Your task to perform on an android device: Search for razer blade on amazon, select the first entry, and add it to the cart. Image 0: 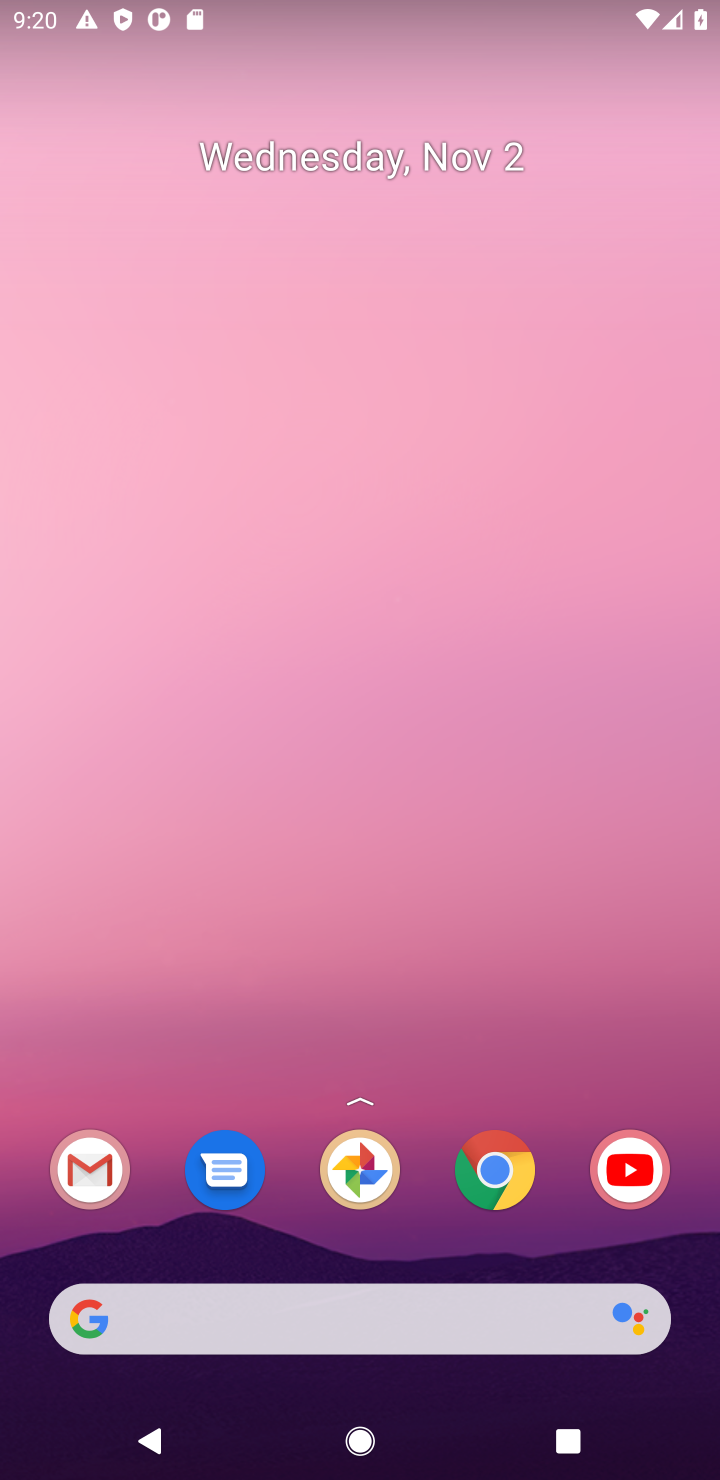
Step 0: click (497, 1173)
Your task to perform on an android device: Search for razer blade on amazon, select the first entry, and add it to the cart. Image 1: 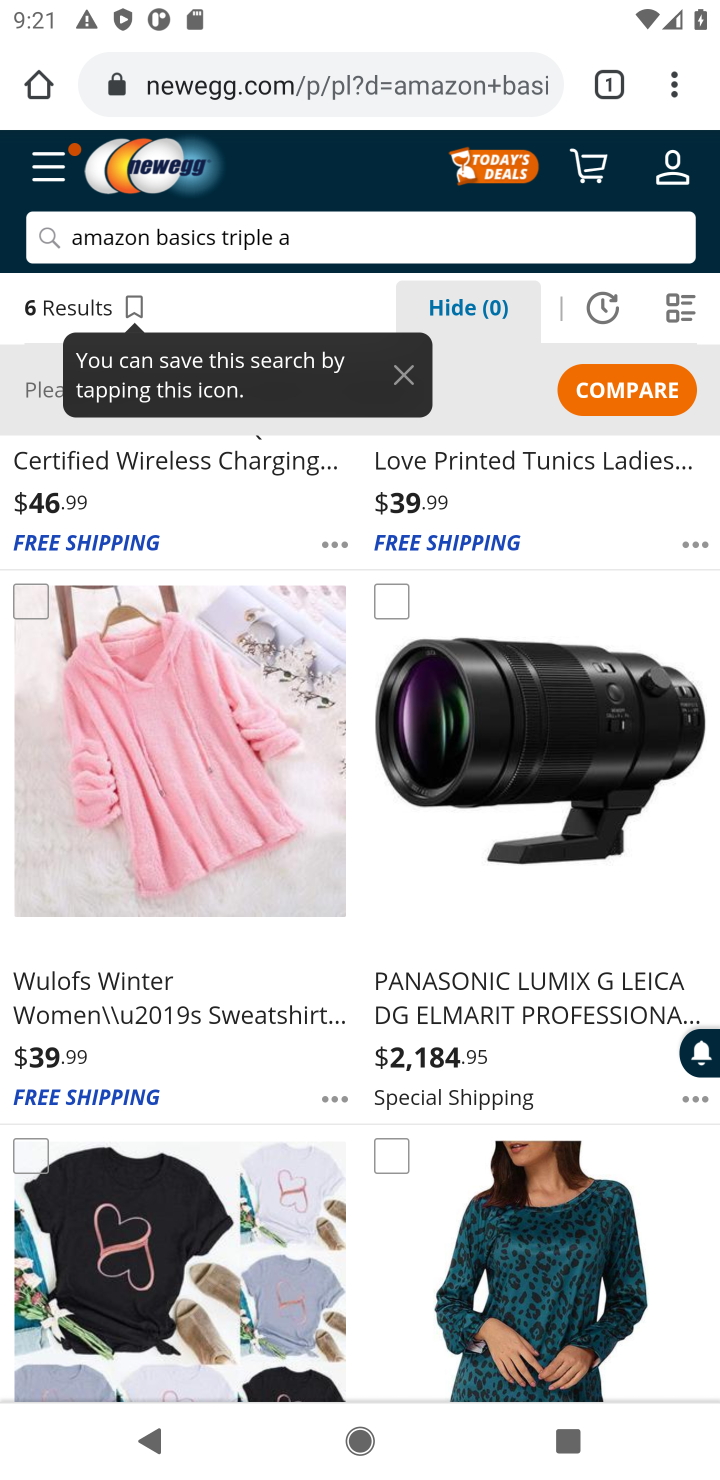
Step 1: click (425, 93)
Your task to perform on an android device: Search for razer blade on amazon, select the first entry, and add it to the cart. Image 2: 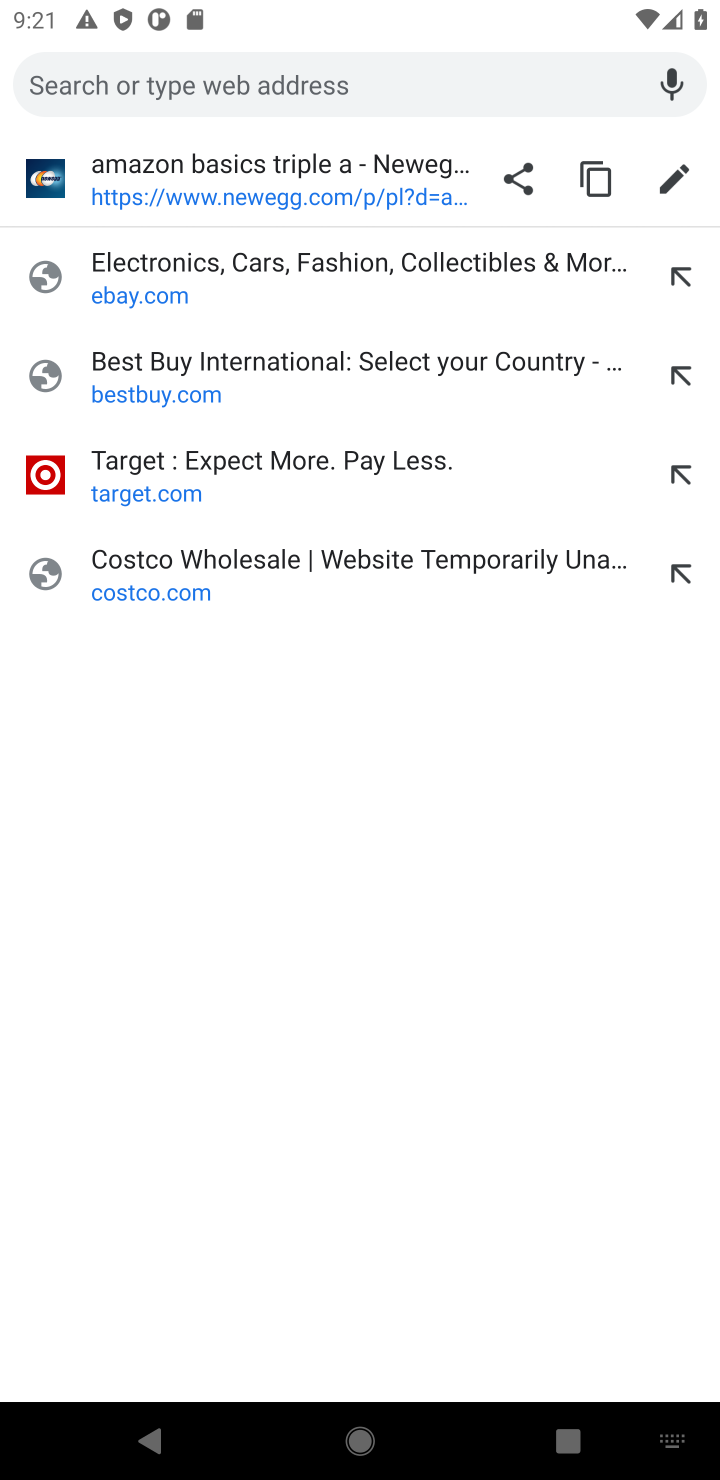
Step 2: type "amazon"
Your task to perform on an android device: Search for razer blade on amazon, select the first entry, and add it to the cart. Image 3: 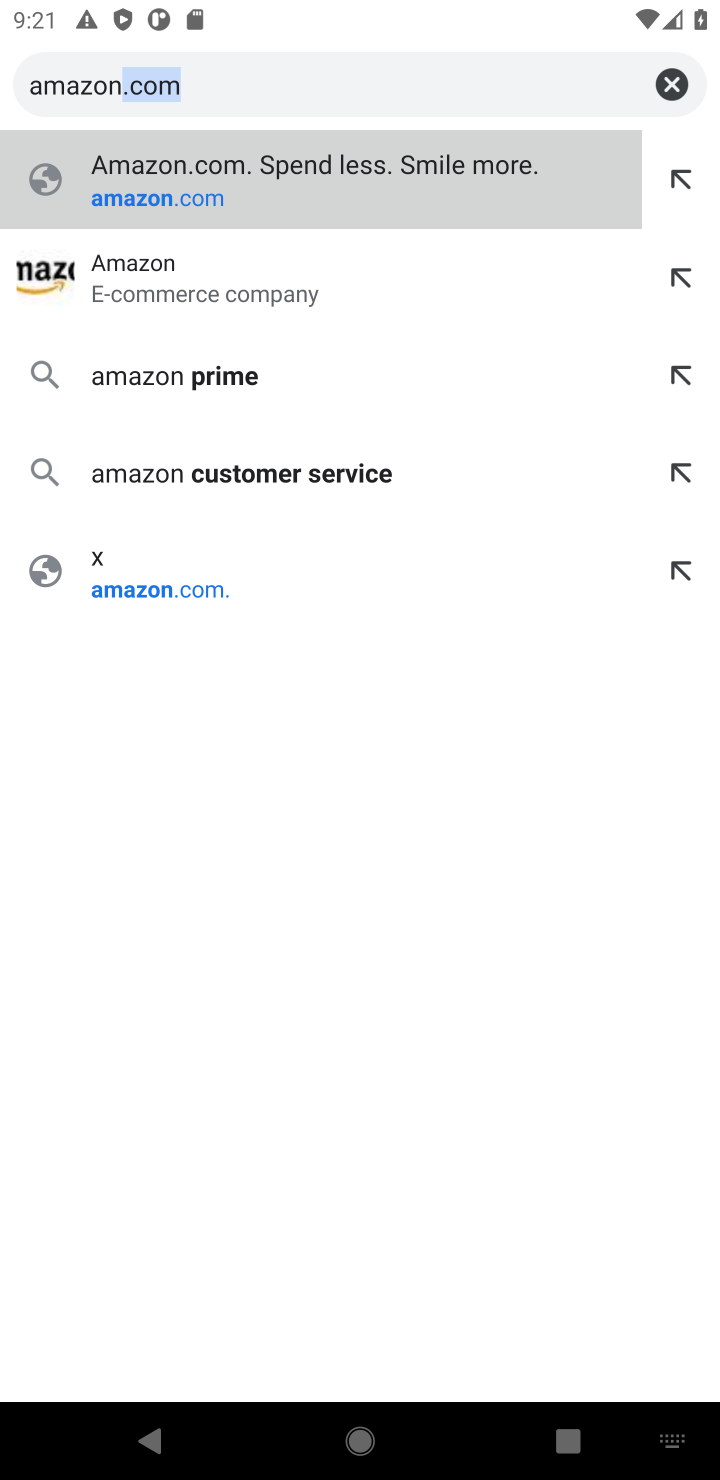
Step 3: type ""
Your task to perform on an android device: Search for razer blade on amazon, select the first entry, and add it to the cart. Image 4: 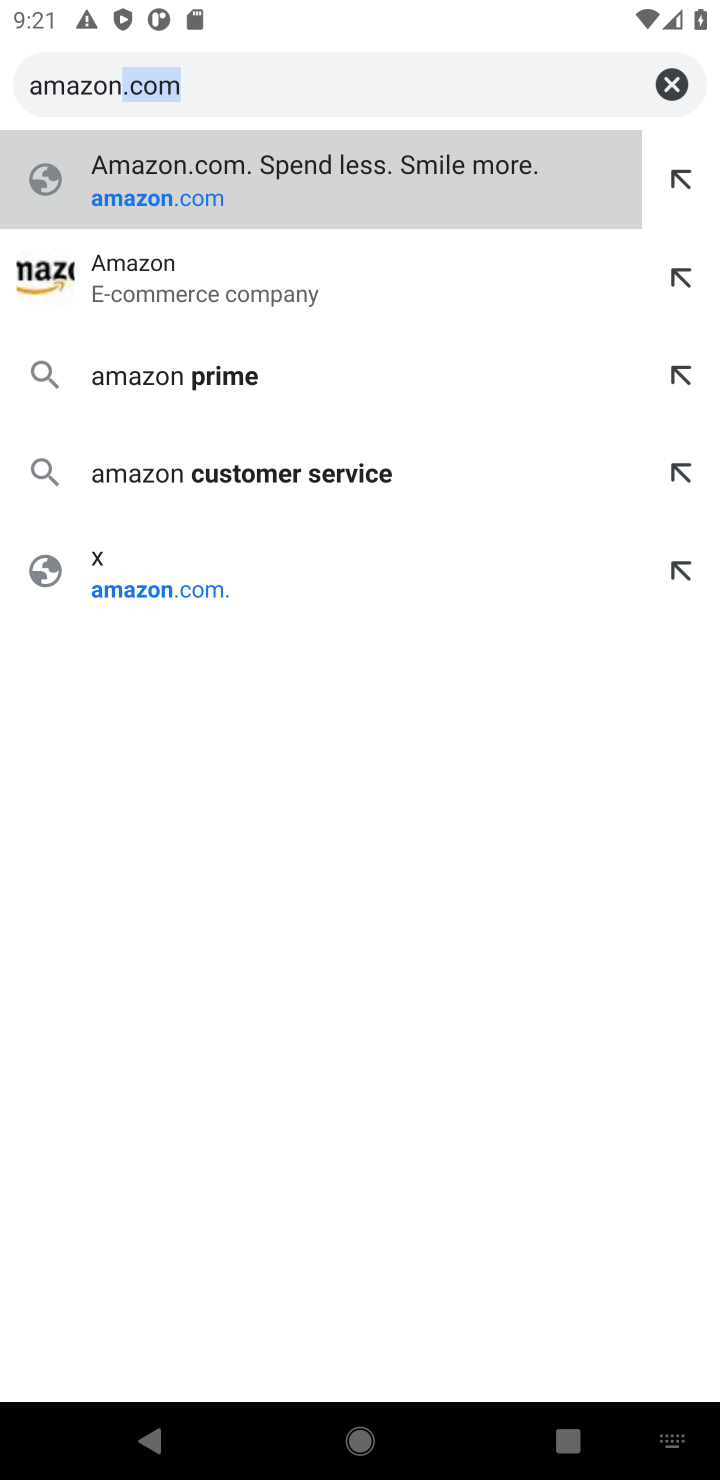
Step 4: press enter
Your task to perform on an android device: Search for razer blade on amazon, select the first entry, and add it to the cart. Image 5: 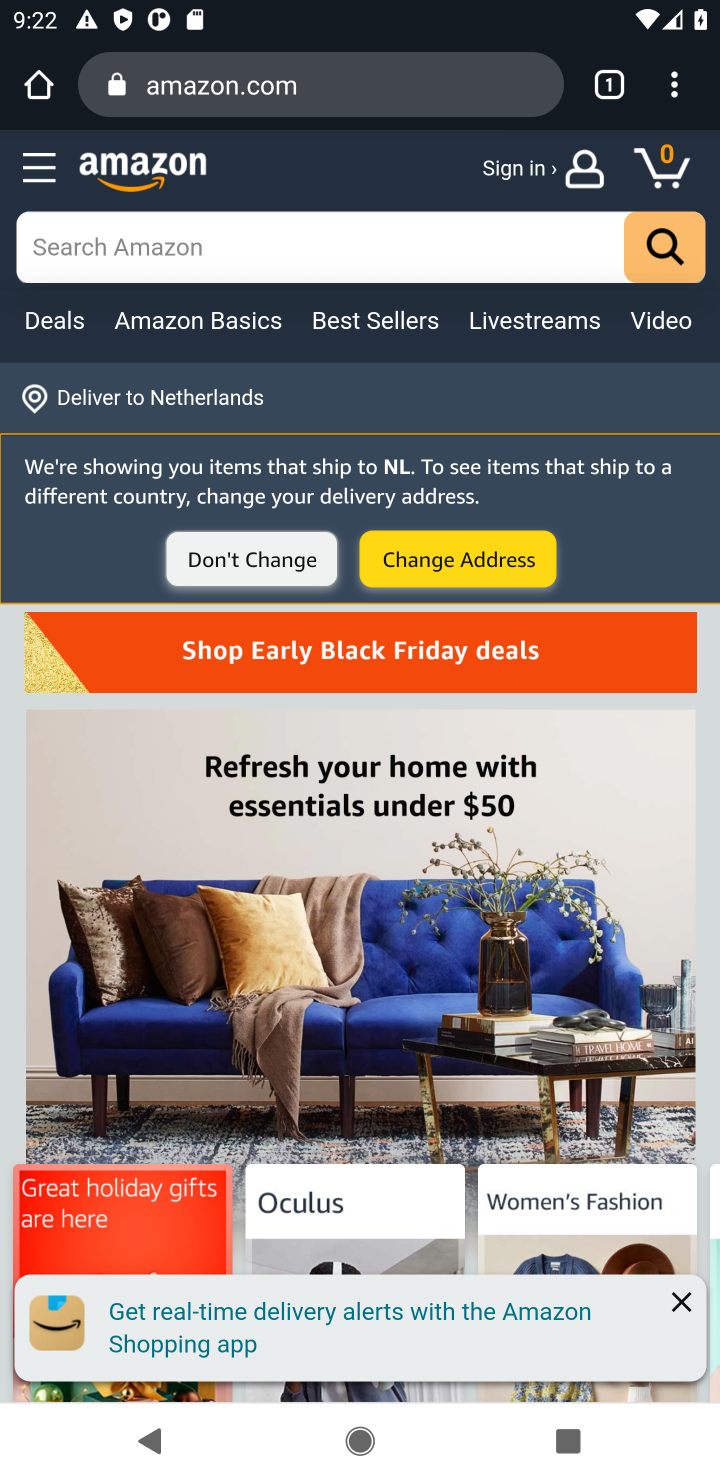
Step 5: click (308, 269)
Your task to perform on an android device: Search for razer blade on amazon, select the first entry, and add it to the cart. Image 6: 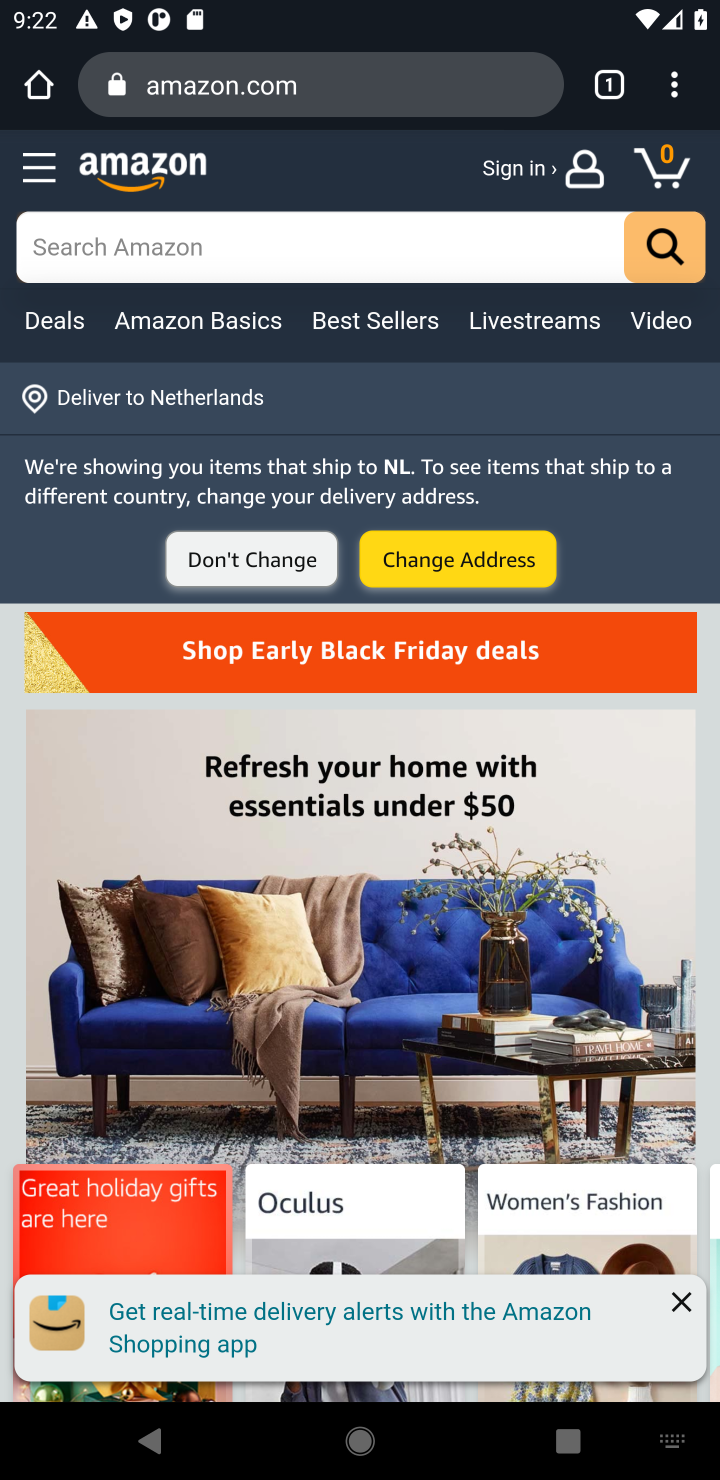
Step 6: type "razer blade"
Your task to perform on an android device: Search for razer blade on amazon, select the first entry, and add it to the cart. Image 7: 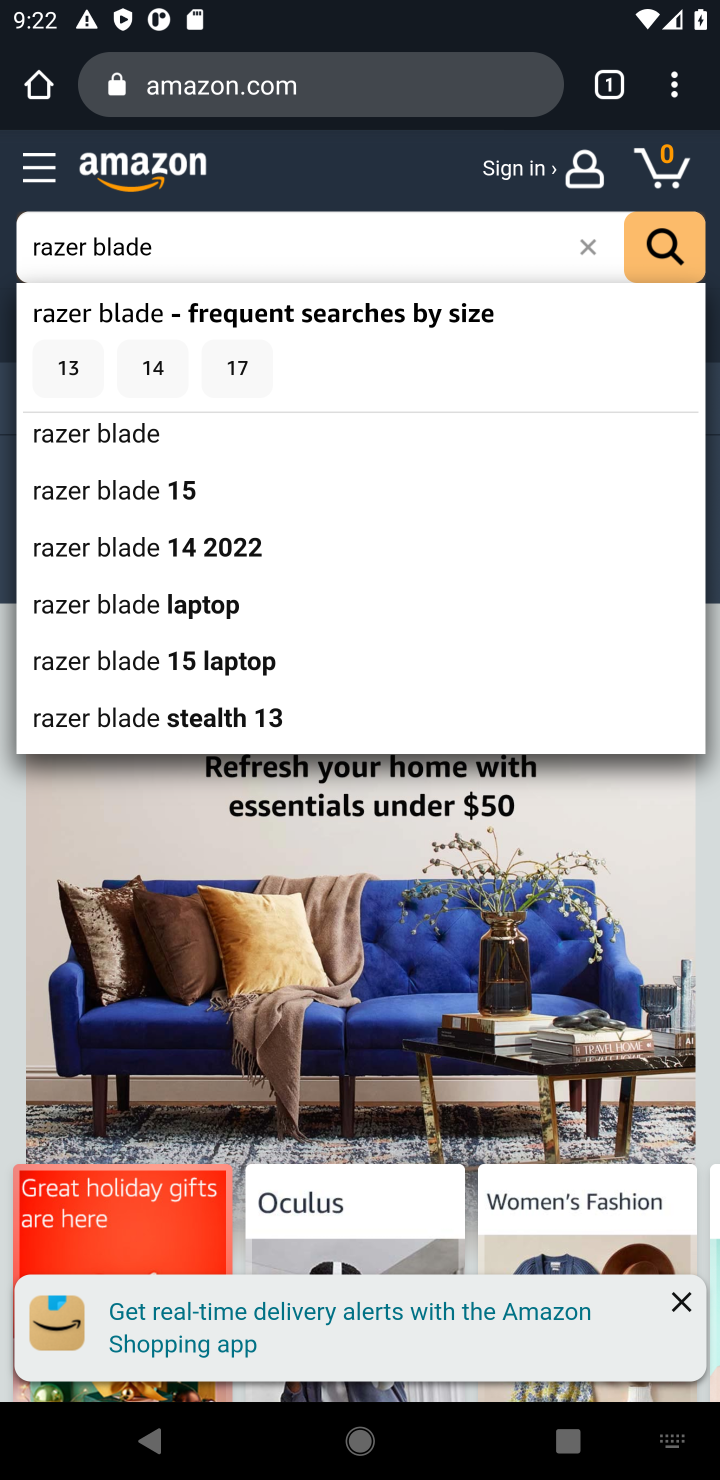
Step 7: press enter
Your task to perform on an android device: Search for razer blade on amazon, select the first entry, and add it to the cart. Image 8: 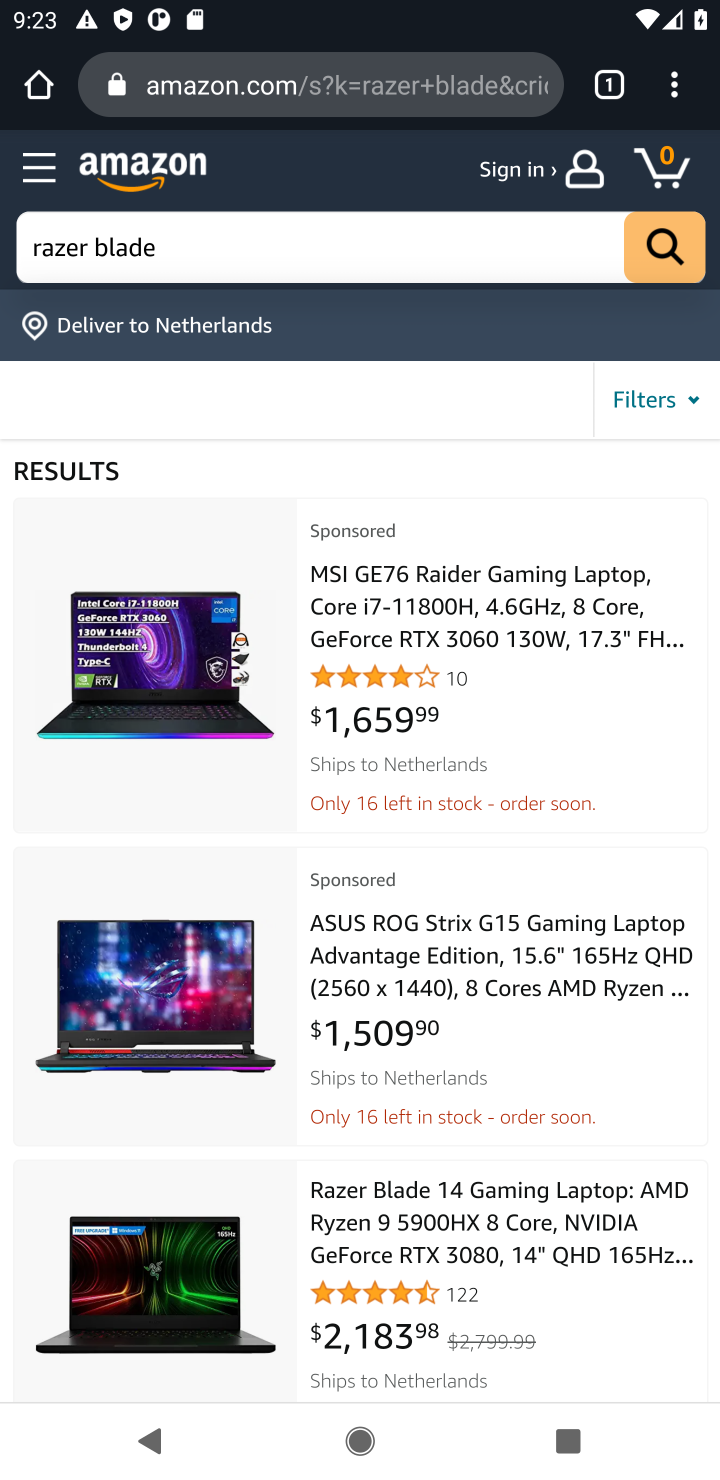
Step 8: drag from (467, 840) to (487, 637)
Your task to perform on an android device: Search for razer blade on amazon, select the first entry, and add it to the cart. Image 9: 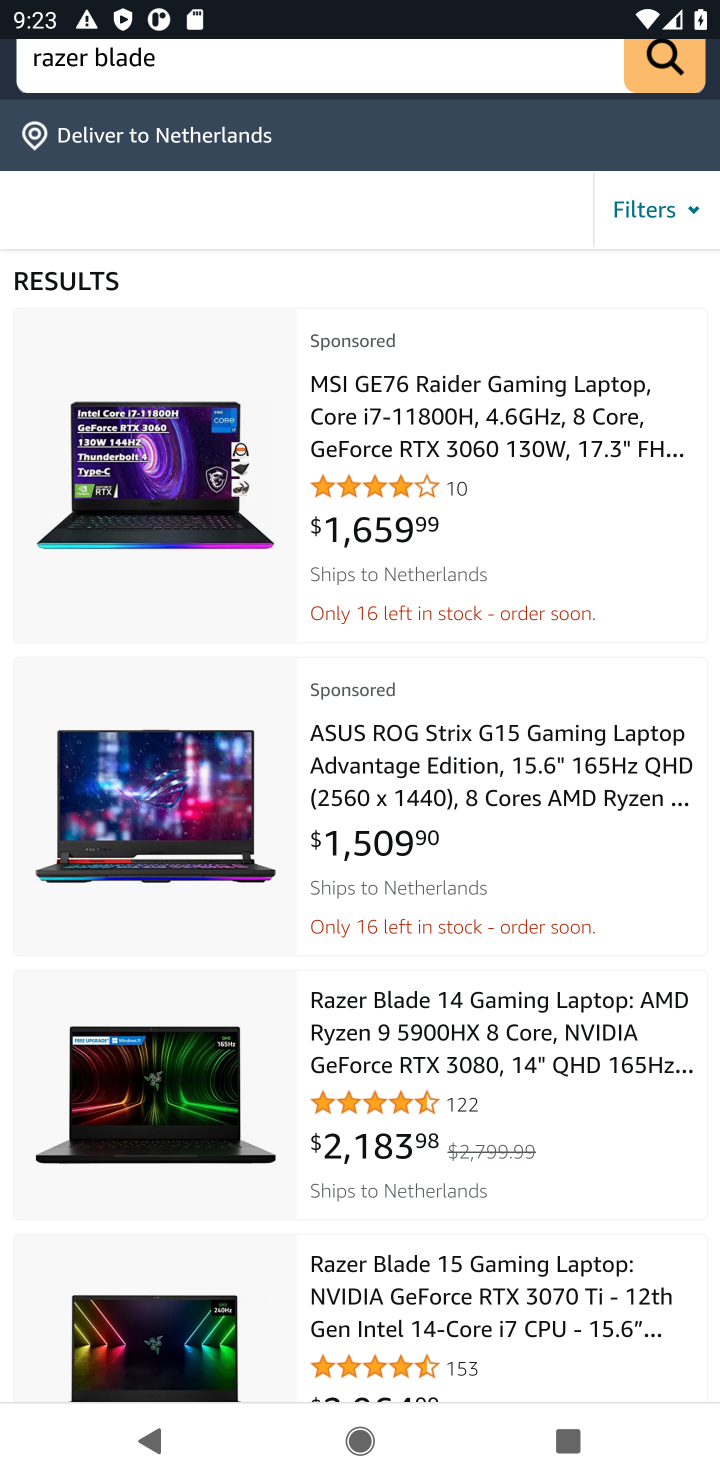
Step 9: click (418, 1014)
Your task to perform on an android device: Search for razer blade on amazon, select the first entry, and add it to the cart. Image 10: 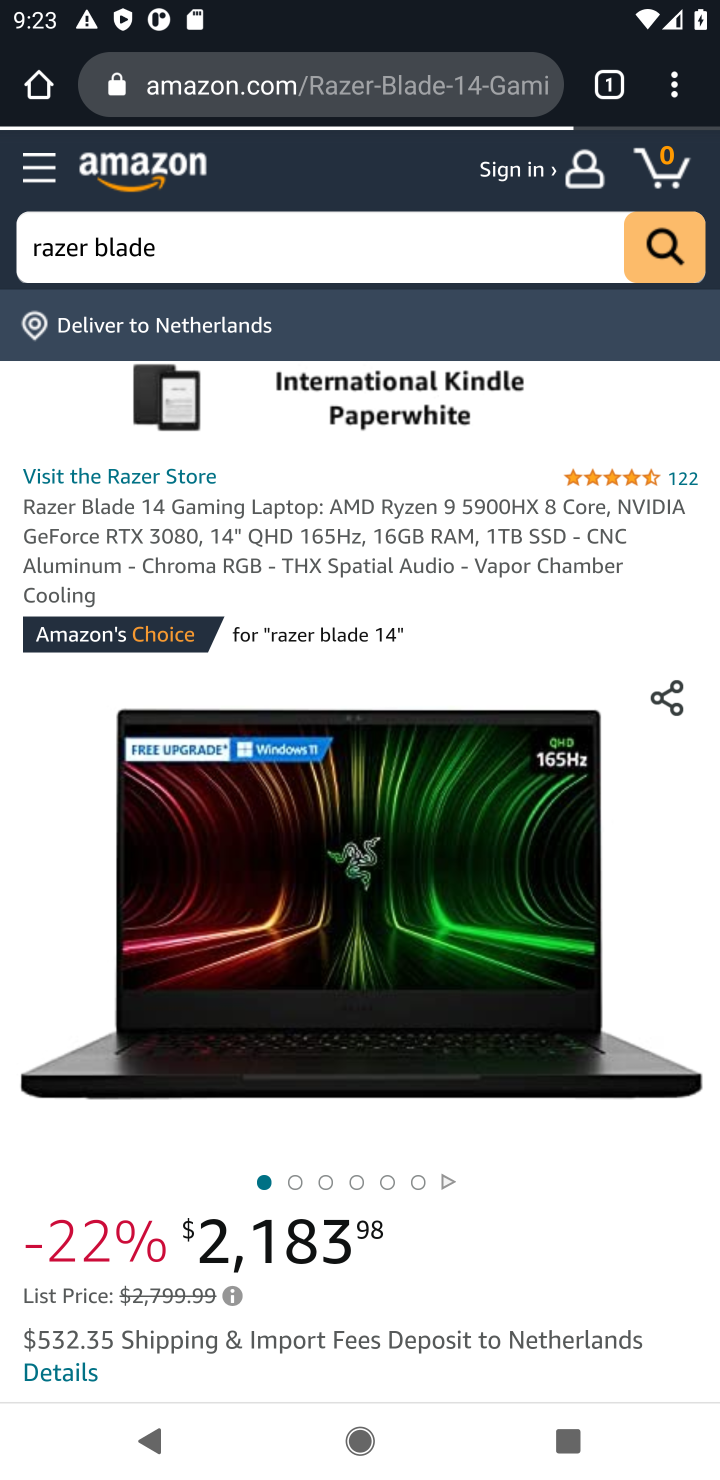
Step 10: drag from (459, 1062) to (462, 414)
Your task to perform on an android device: Search for razer blade on amazon, select the first entry, and add it to the cart. Image 11: 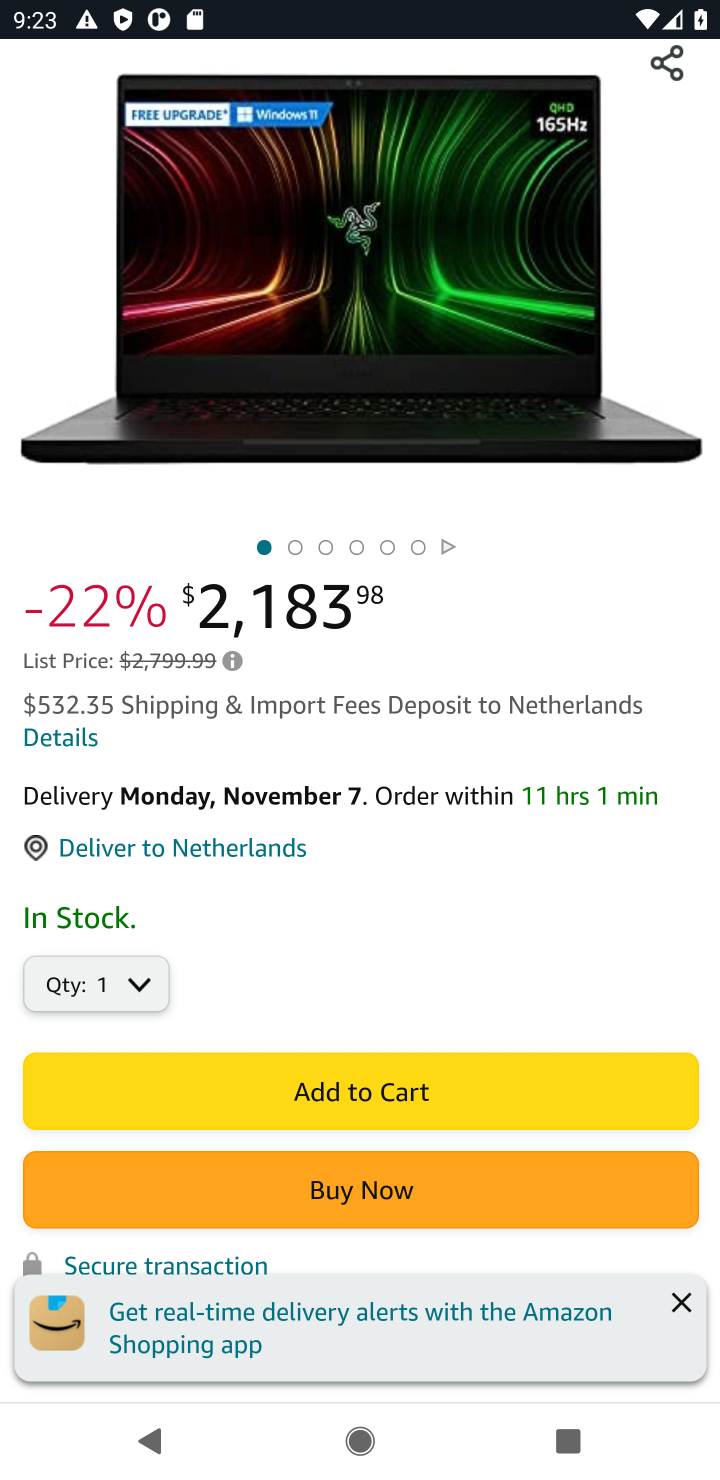
Step 11: click (316, 1080)
Your task to perform on an android device: Search for razer blade on amazon, select the first entry, and add it to the cart. Image 12: 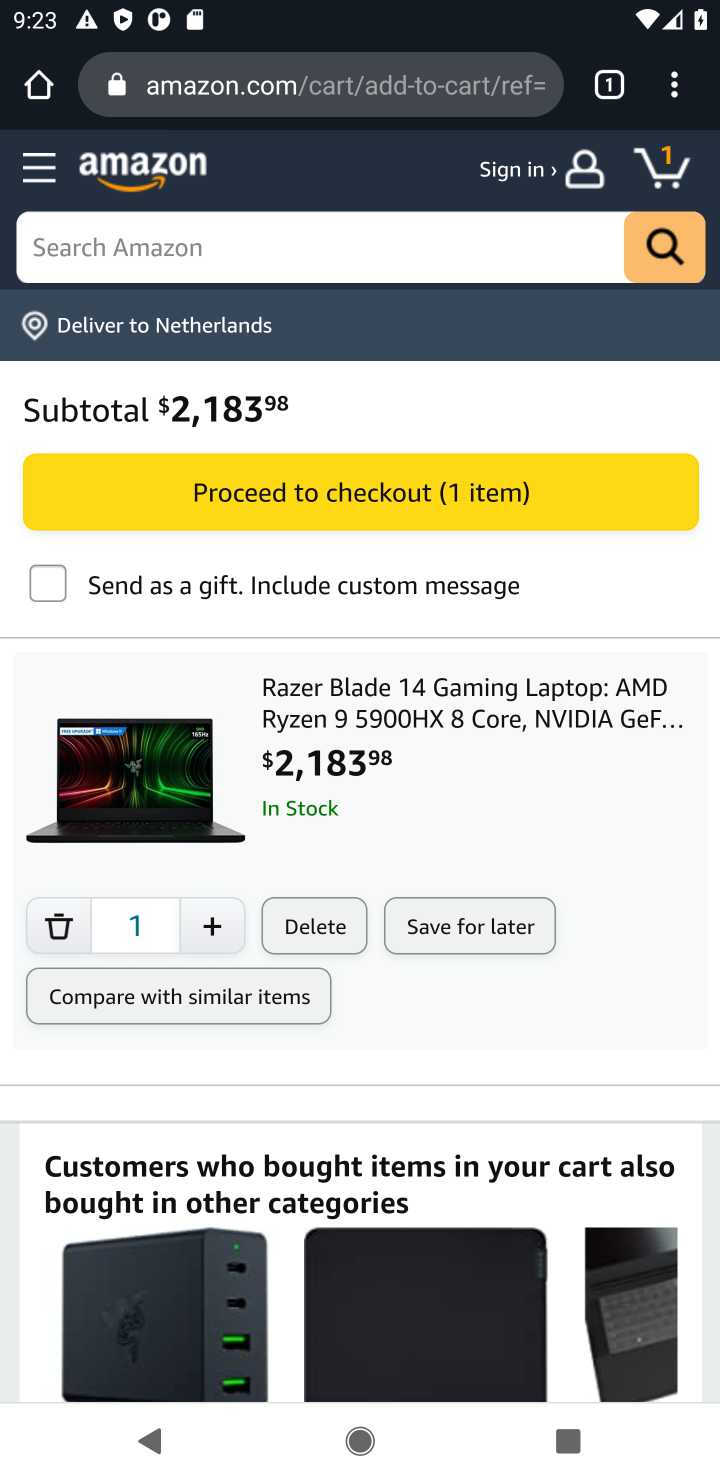
Step 12: click (352, 501)
Your task to perform on an android device: Search for razer blade on amazon, select the first entry, and add it to the cart. Image 13: 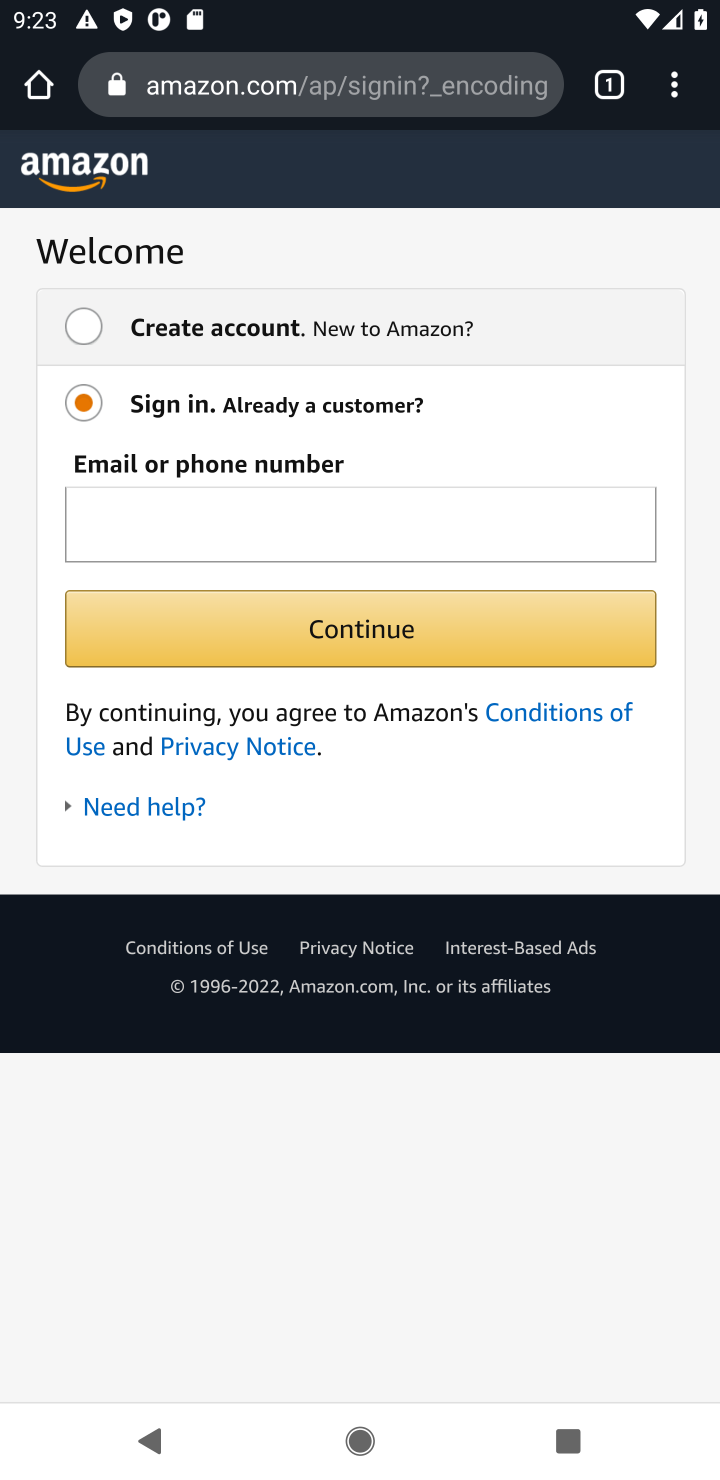
Step 13: task complete